Your task to perform on an android device: See recent photos Image 0: 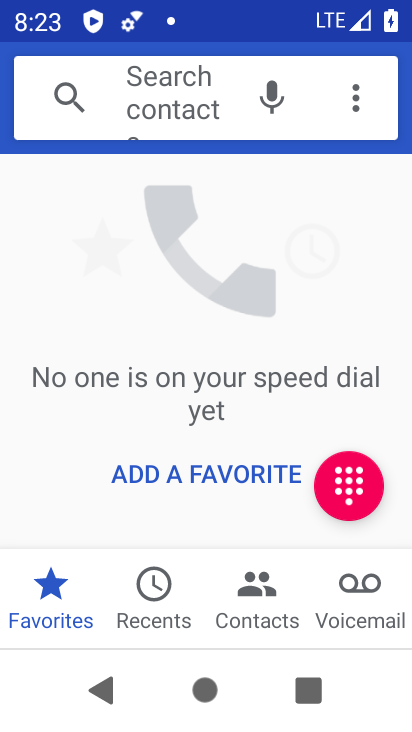
Step 0: press home button
Your task to perform on an android device: See recent photos Image 1: 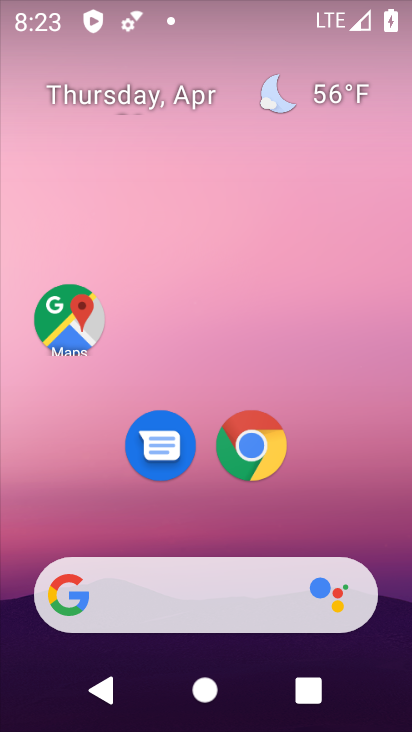
Step 1: drag from (383, 525) to (342, 5)
Your task to perform on an android device: See recent photos Image 2: 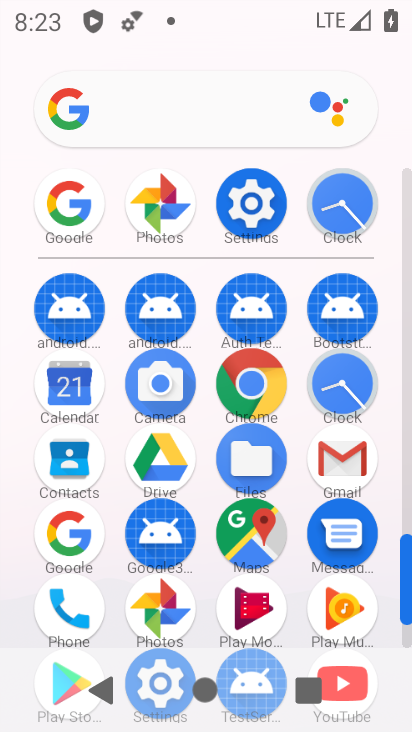
Step 2: click (164, 208)
Your task to perform on an android device: See recent photos Image 3: 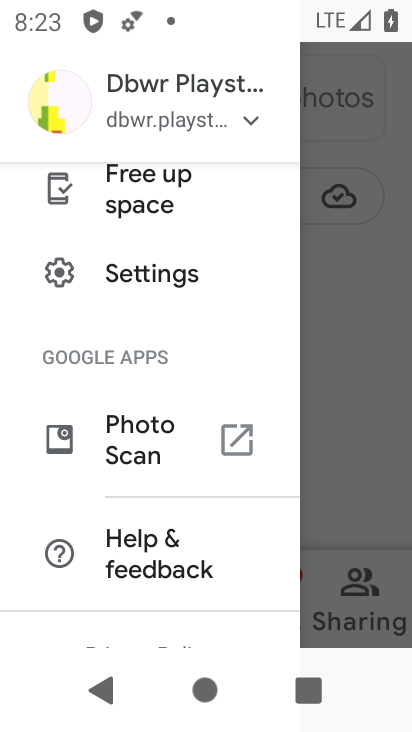
Step 3: drag from (175, 432) to (177, 167)
Your task to perform on an android device: See recent photos Image 4: 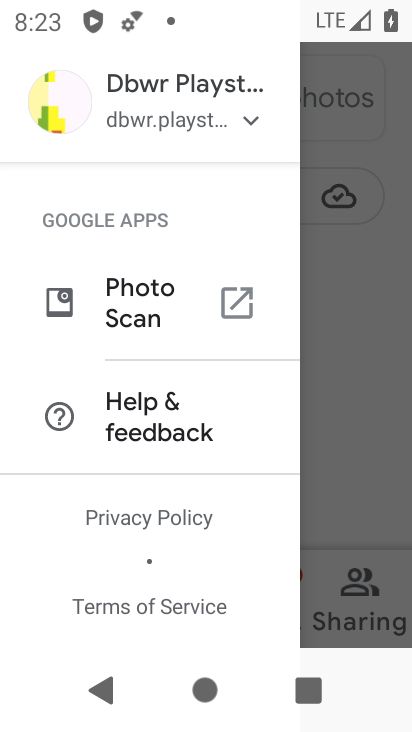
Step 4: click (314, 441)
Your task to perform on an android device: See recent photos Image 5: 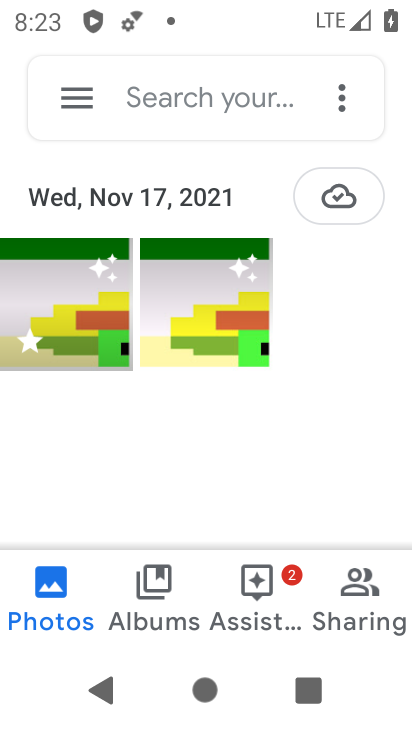
Step 5: task complete